Your task to perform on an android device: turn off translation in the chrome app Image 0: 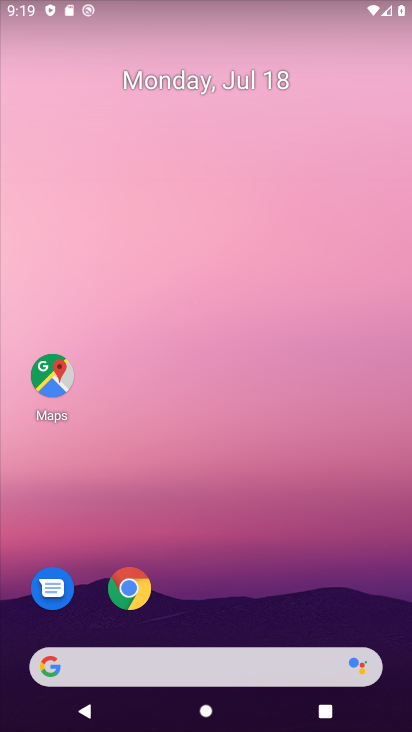
Step 0: drag from (192, 649) to (217, 158)
Your task to perform on an android device: turn off translation in the chrome app Image 1: 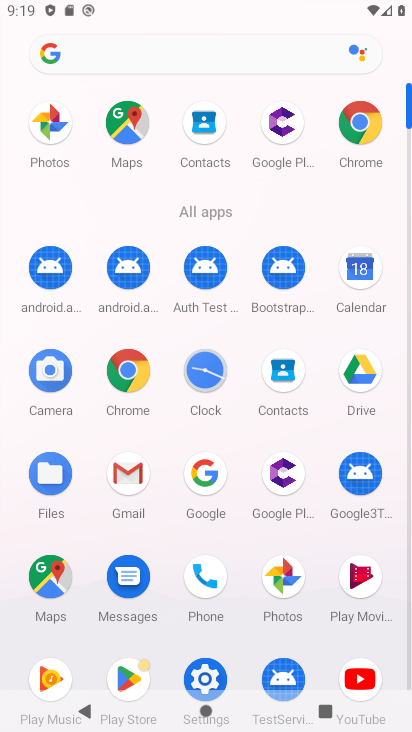
Step 1: click (135, 367)
Your task to perform on an android device: turn off translation in the chrome app Image 2: 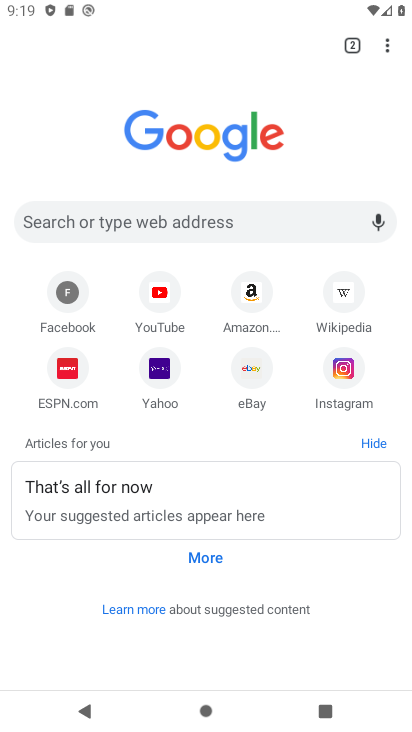
Step 2: drag from (390, 31) to (307, 374)
Your task to perform on an android device: turn off translation in the chrome app Image 3: 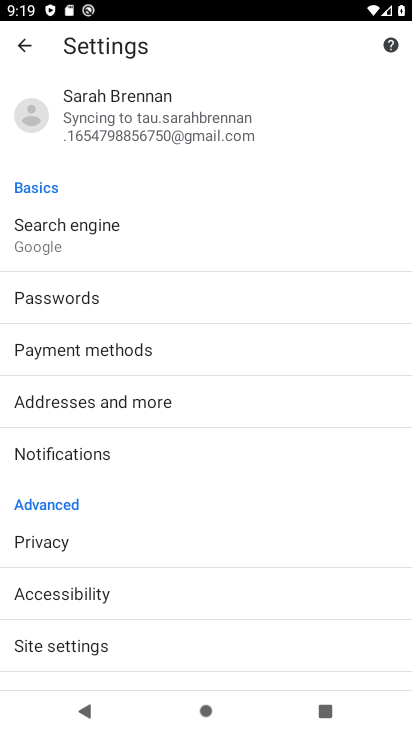
Step 3: drag from (152, 640) to (196, 357)
Your task to perform on an android device: turn off translation in the chrome app Image 4: 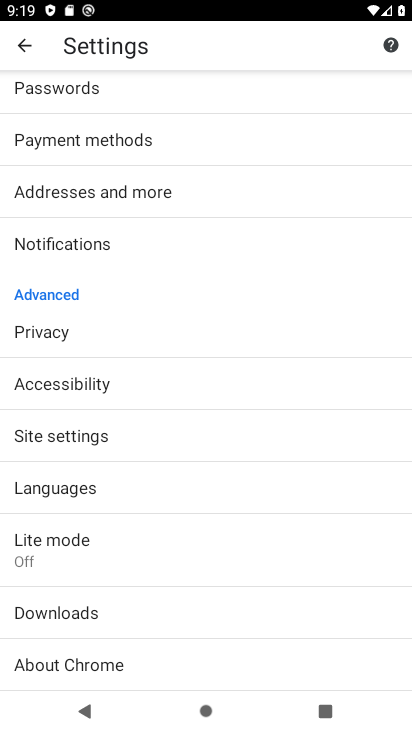
Step 4: click (160, 509)
Your task to perform on an android device: turn off translation in the chrome app Image 5: 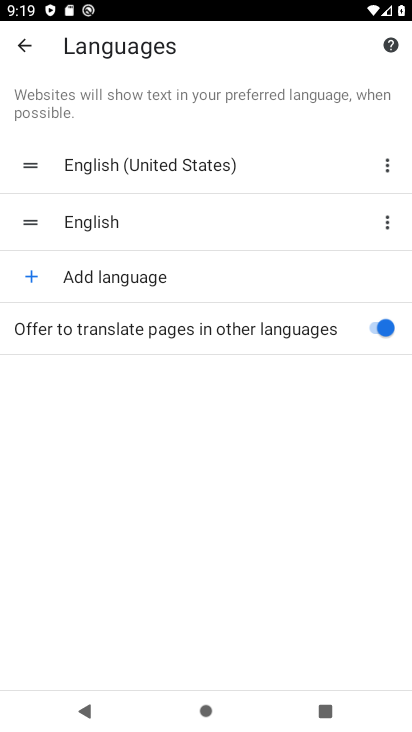
Step 5: click (374, 329)
Your task to perform on an android device: turn off translation in the chrome app Image 6: 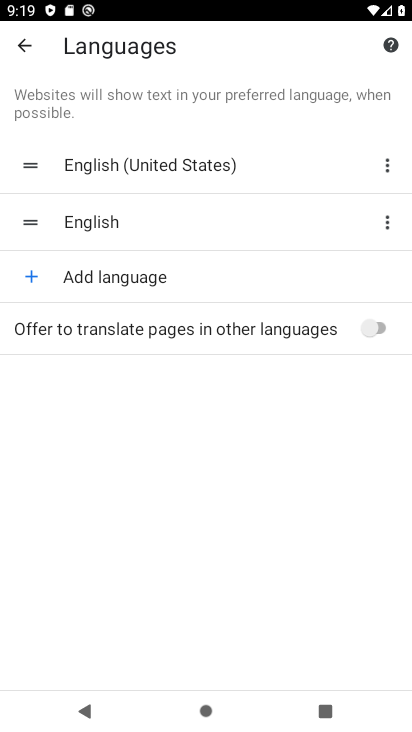
Step 6: task complete